Your task to perform on an android device: Go to settings Image 0: 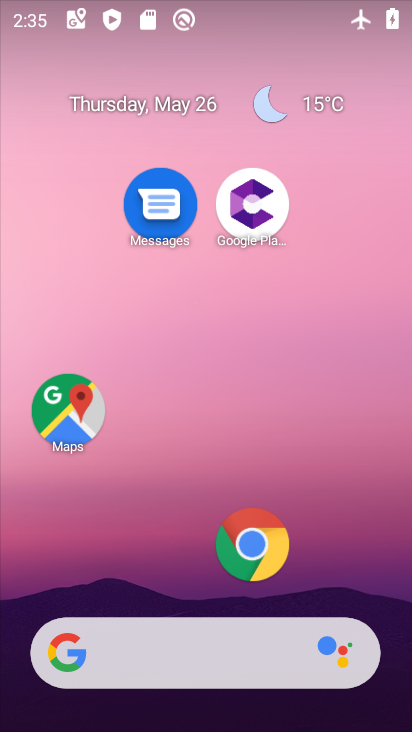
Step 0: drag from (113, 588) to (91, 215)
Your task to perform on an android device: Go to settings Image 1: 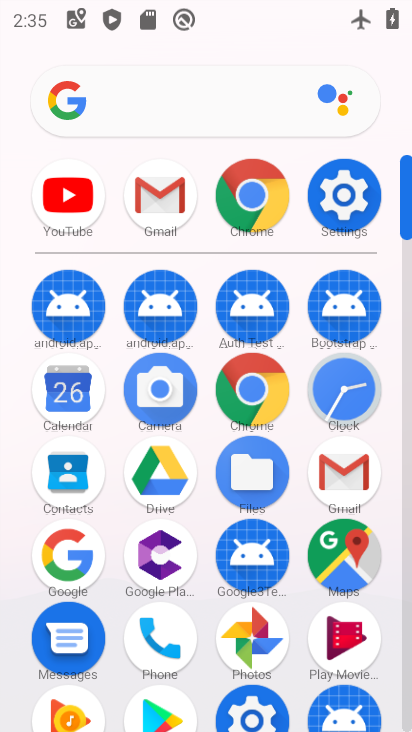
Step 1: click (356, 215)
Your task to perform on an android device: Go to settings Image 2: 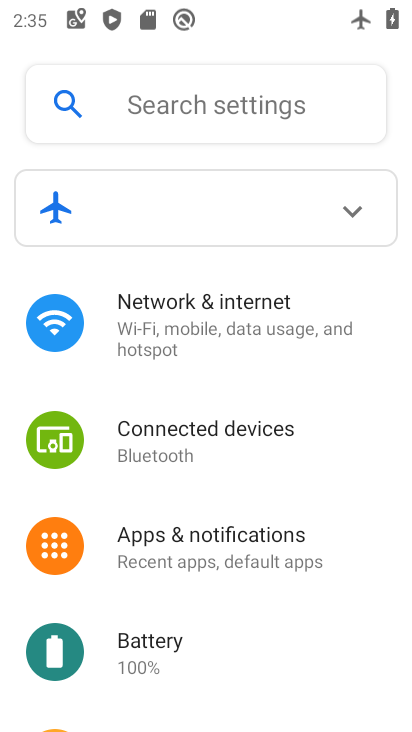
Step 2: task complete